Your task to perform on an android device: check data usage Image 0: 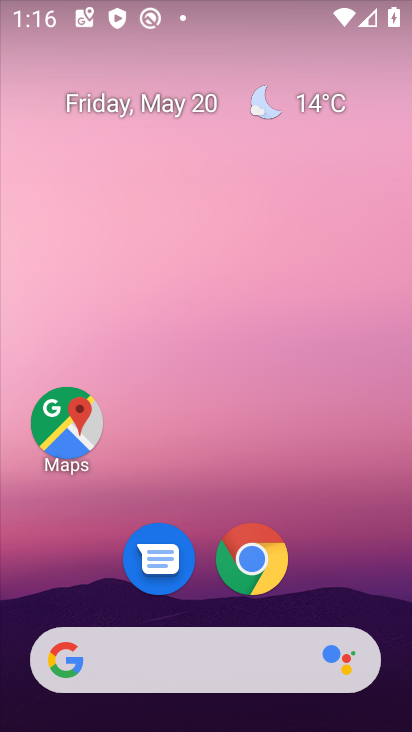
Step 0: drag from (343, 564) to (355, 1)
Your task to perform on an android device: check data usage Image 1: 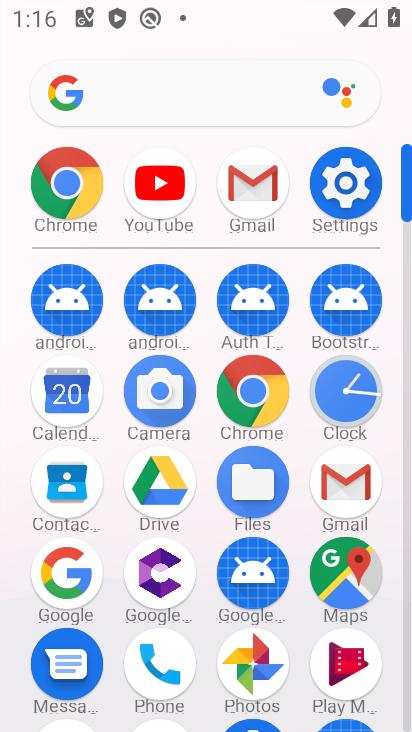
Step 1: click (329, 225)
Your task to perform on an android device: check data usage Image 2: 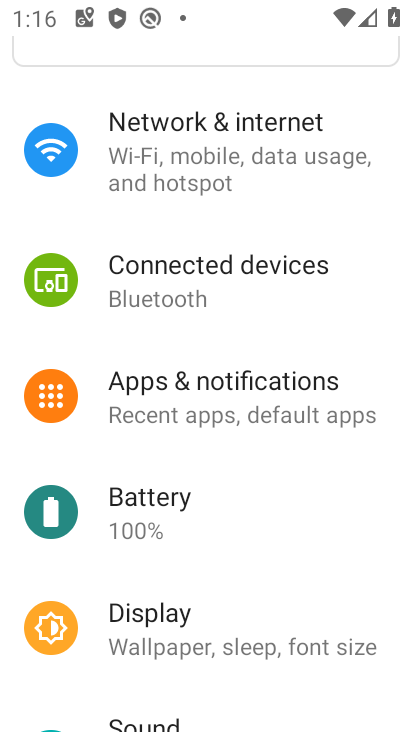
Step 2: click (183, 138)
Your task to perform on an android device: check data usage Image 3: 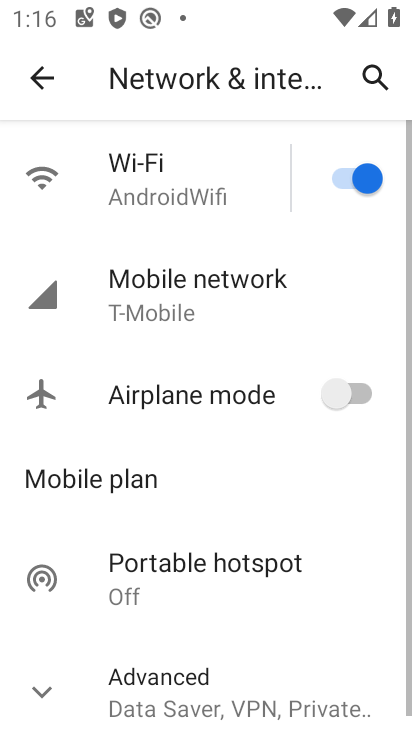
Step 3: task complete